Your task to perform on an android device: open app "File Manager" (install if not already installed) Image 0: 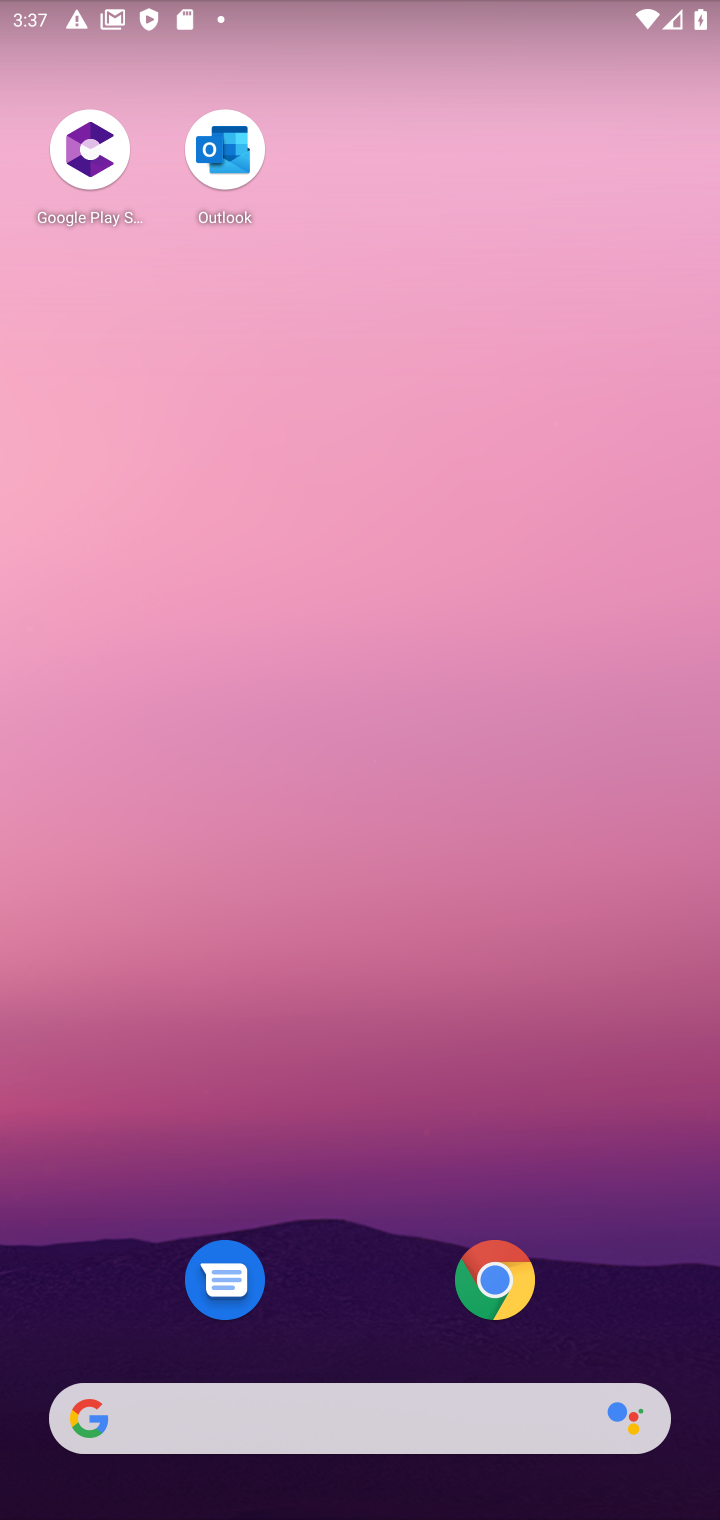
Step 0: drag from (362, 869) to (387, 123)
Your task to perform on an android device: open app "File Manager" (install if not already installed) Image 1: 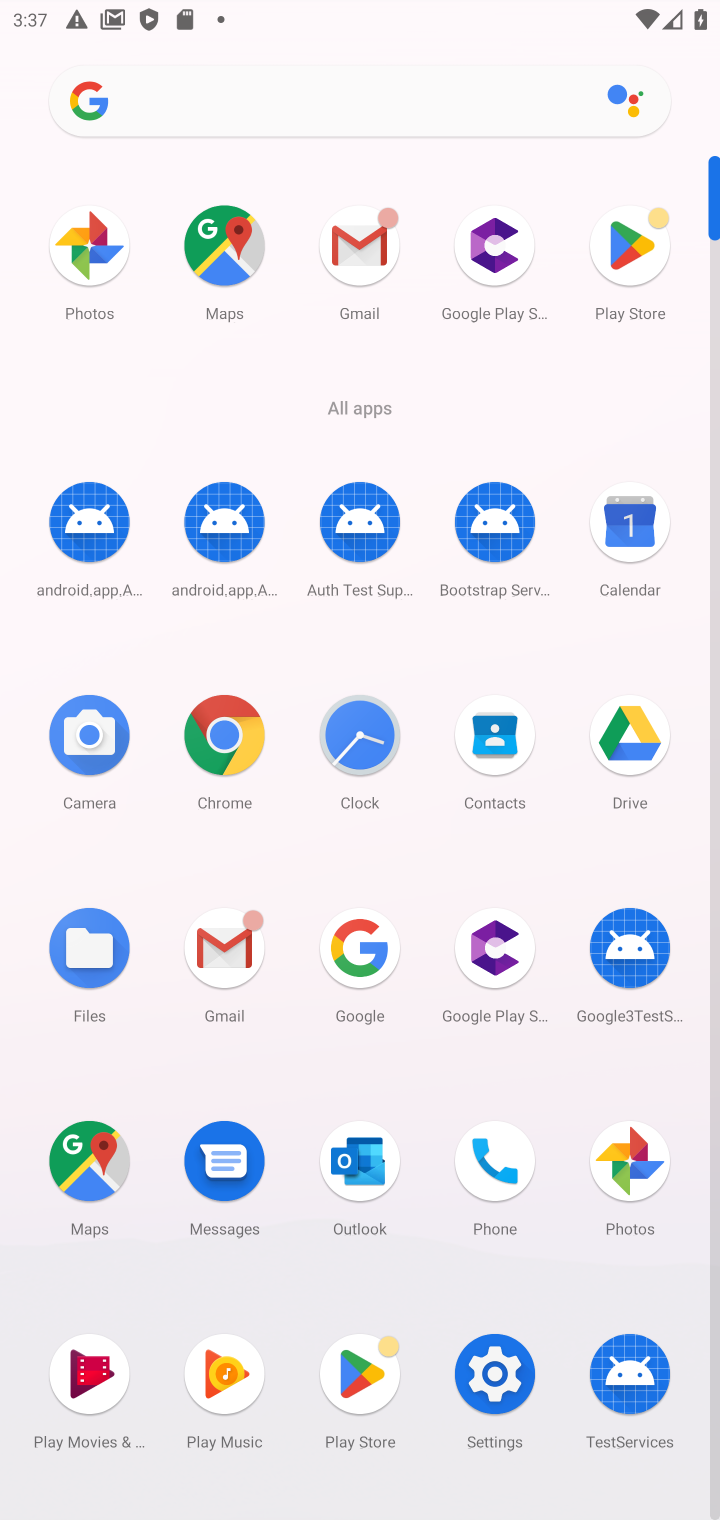
Step 1: click (603, 271)
Your task to perform on an android device: open app "File Manager" (install if not already installed) Image 2: 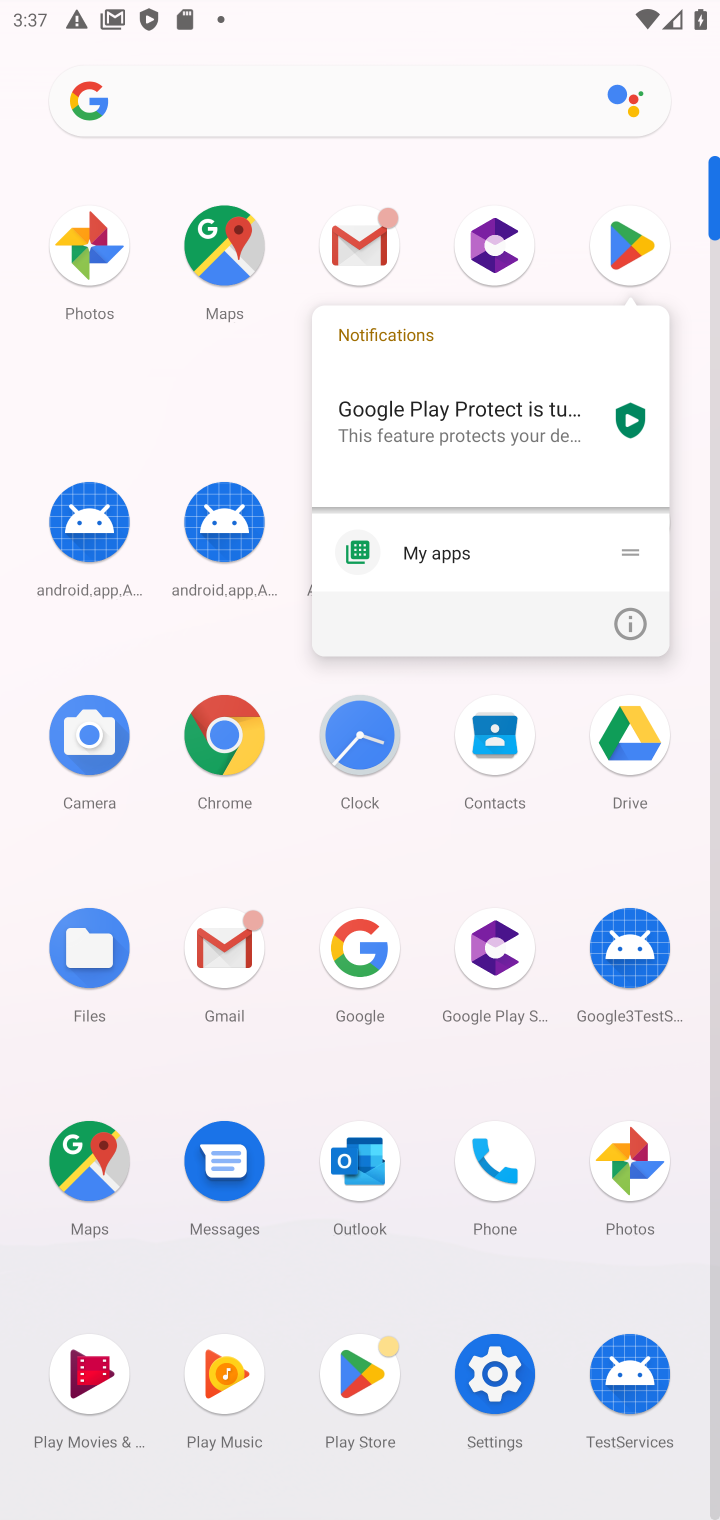
Step 2: click (626, 250)
Your task to perform on an android device: open app "File Manager" (install if not already installed) Image 3: 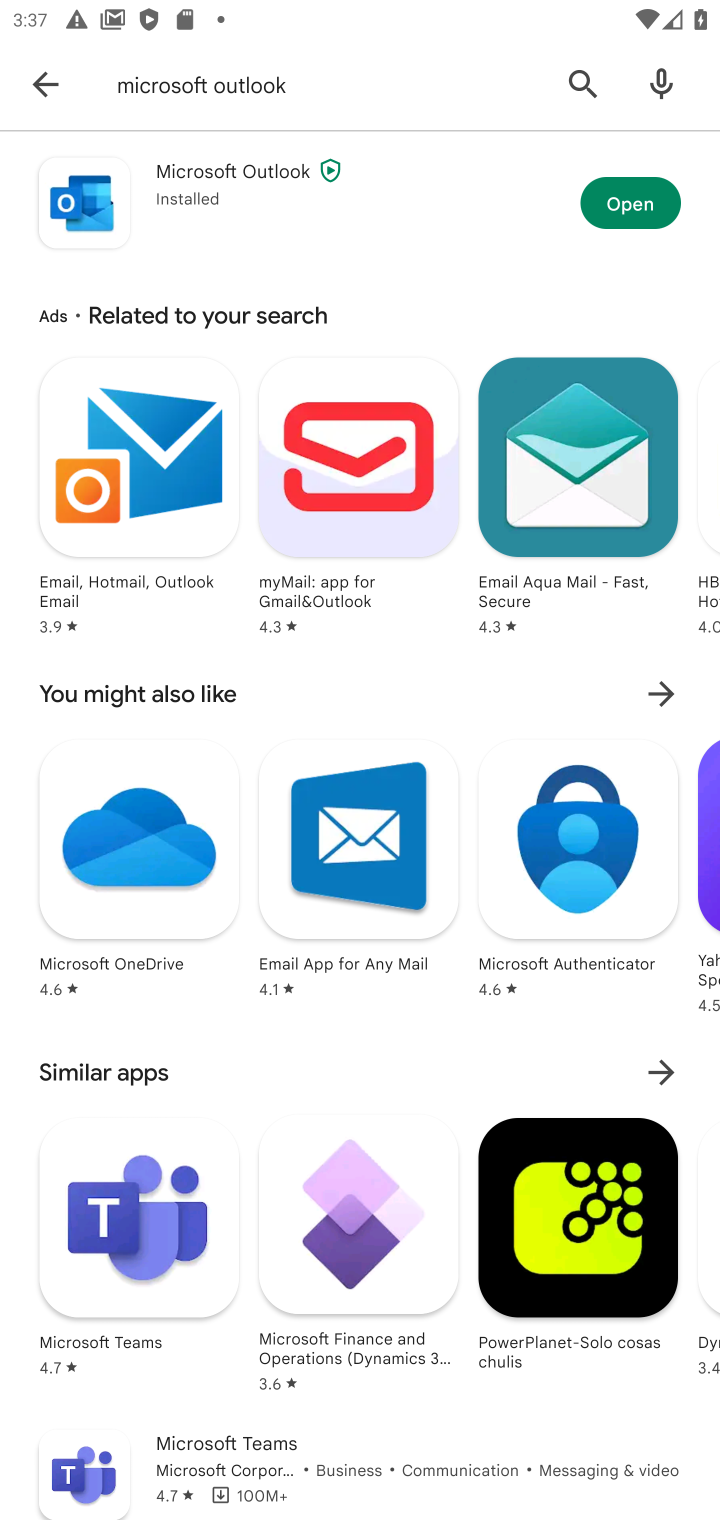
Step 3: click (570, 77)
Your task to perform on an android device: open app "File Manager" (install if not already installed) Image 4: 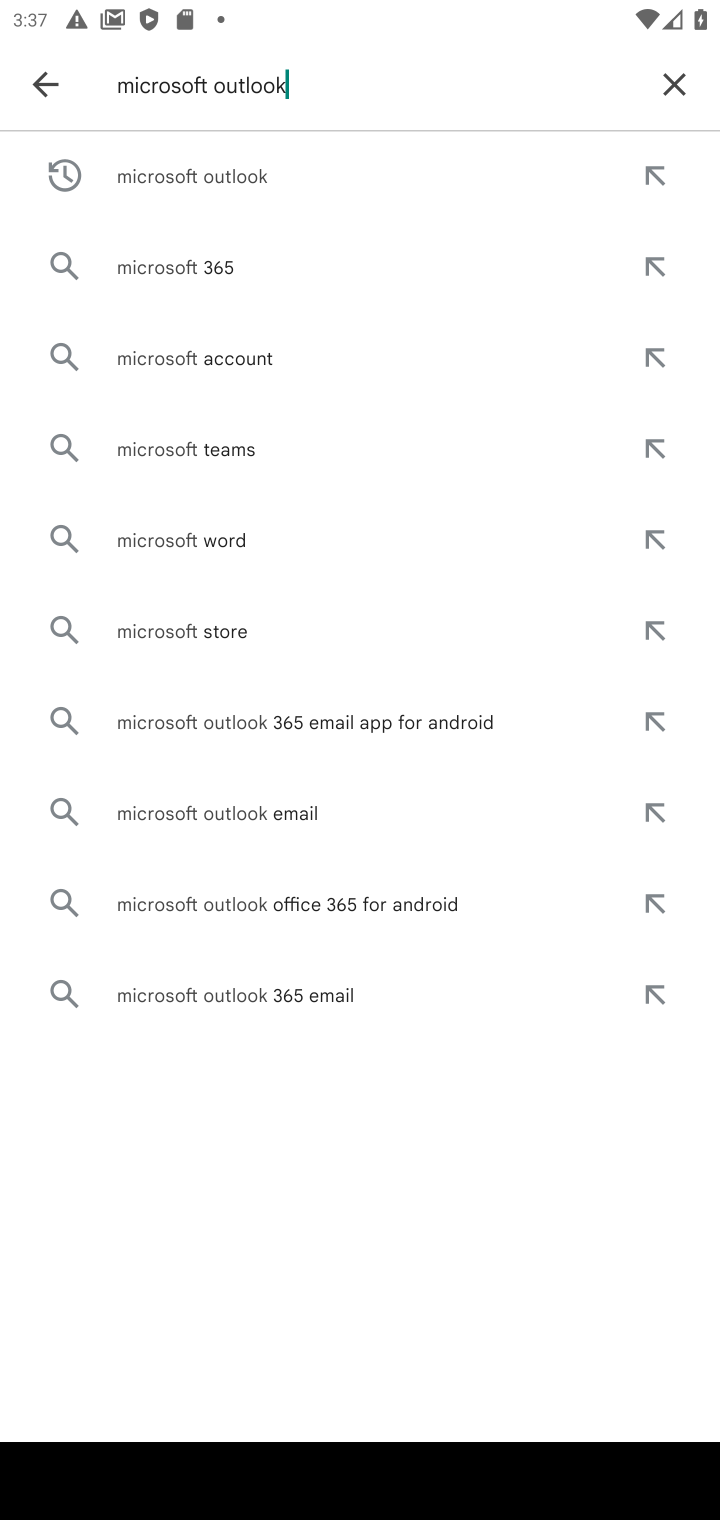
Step 4: click (662, 92)
Your task to perform on an android device: open app "File Manager" (install if not already installed) Image 5: 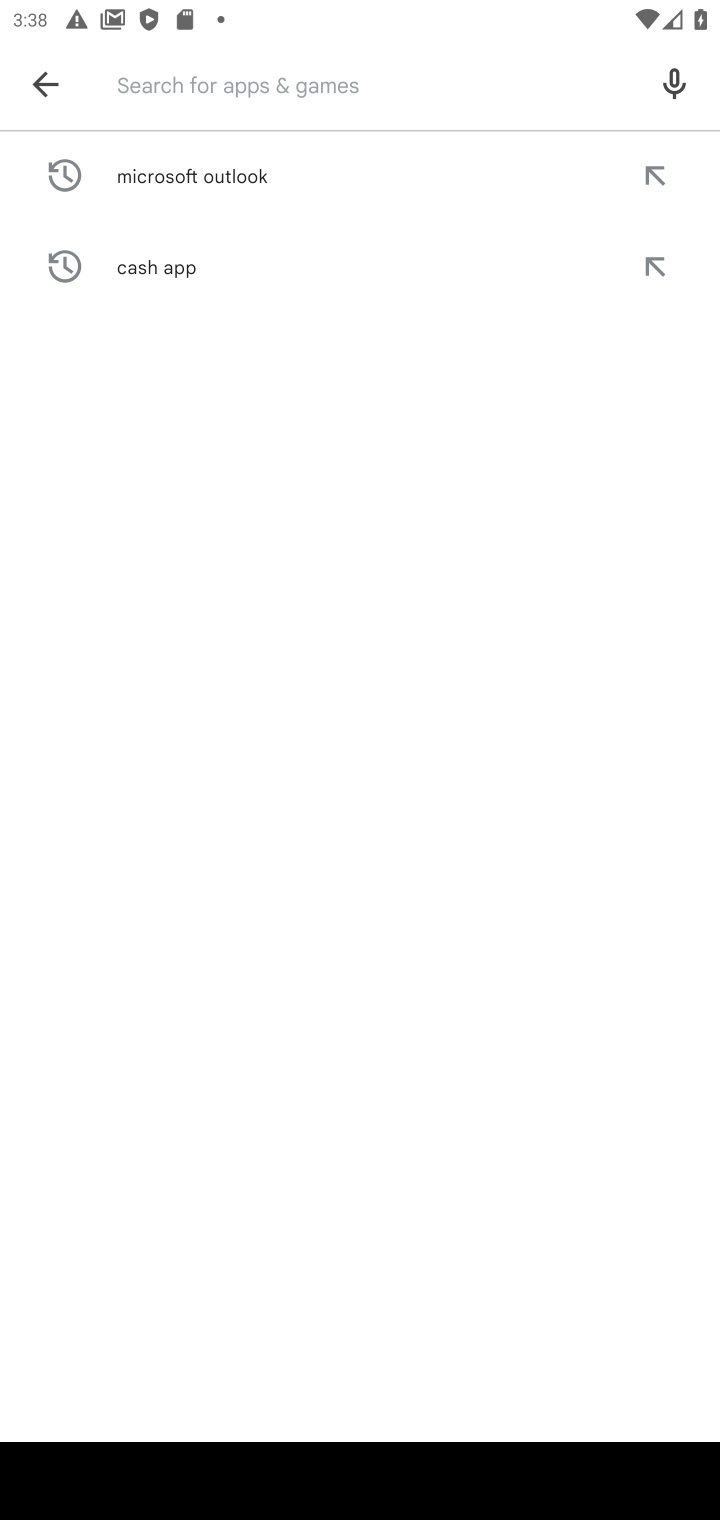
Step 5: type "File Manager"
Your task to perform on an android device: open app "File Manager" (install if not already installed) Image 6: 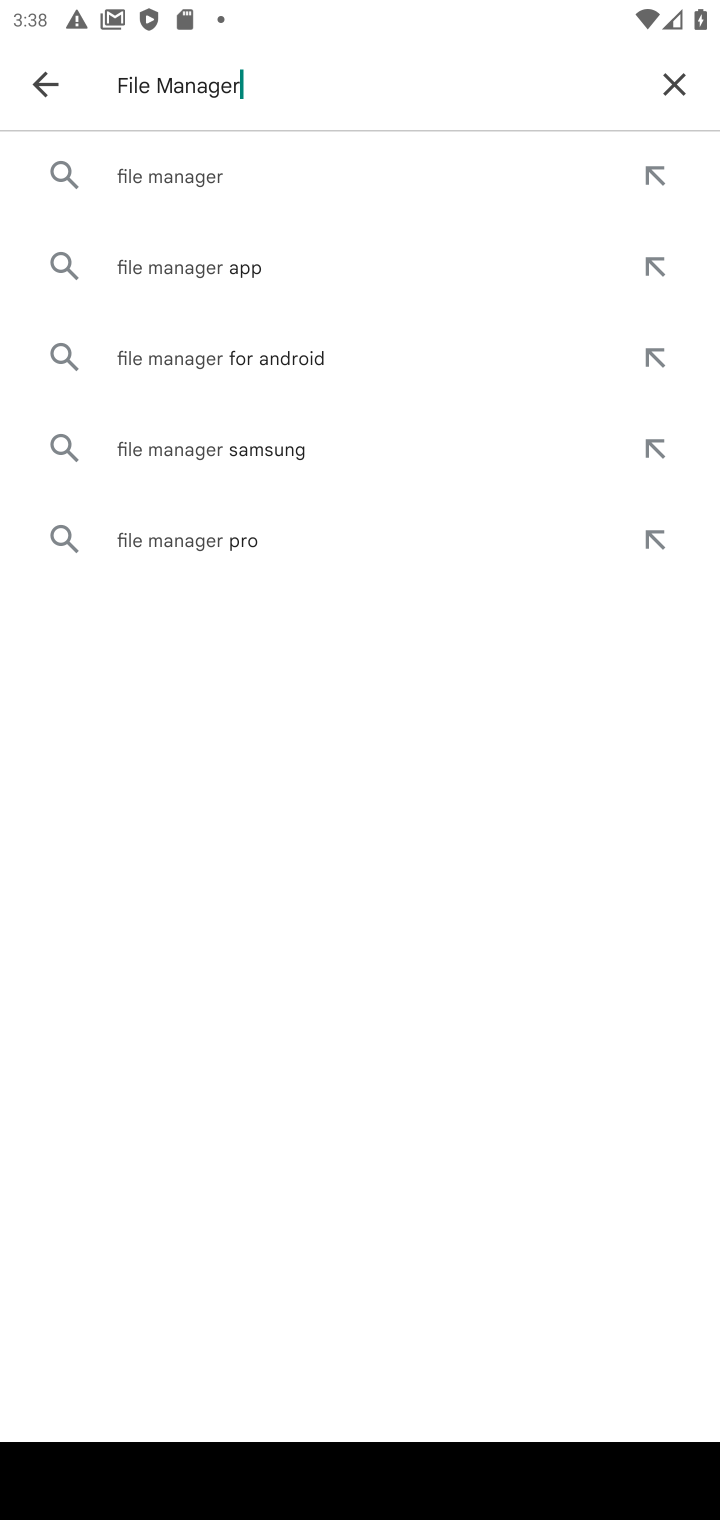
Step 6: click (181, 189)
Your task to perform on an android device: open app "File Manager" (install if not already installed) Image 7: 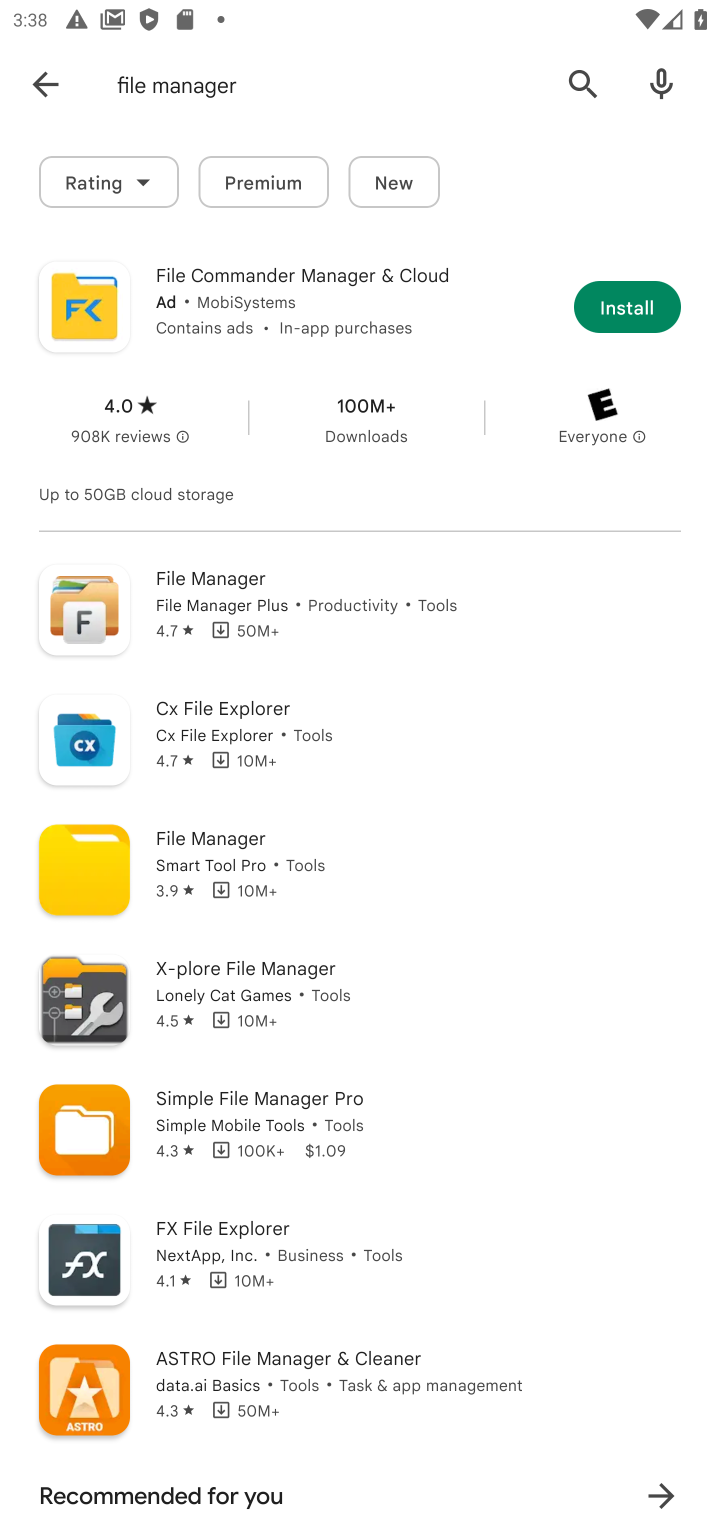
Step 7: click (199, 594)
Your task to perform on an android device: open app "File Manager" (install if not already installed) Image 8: 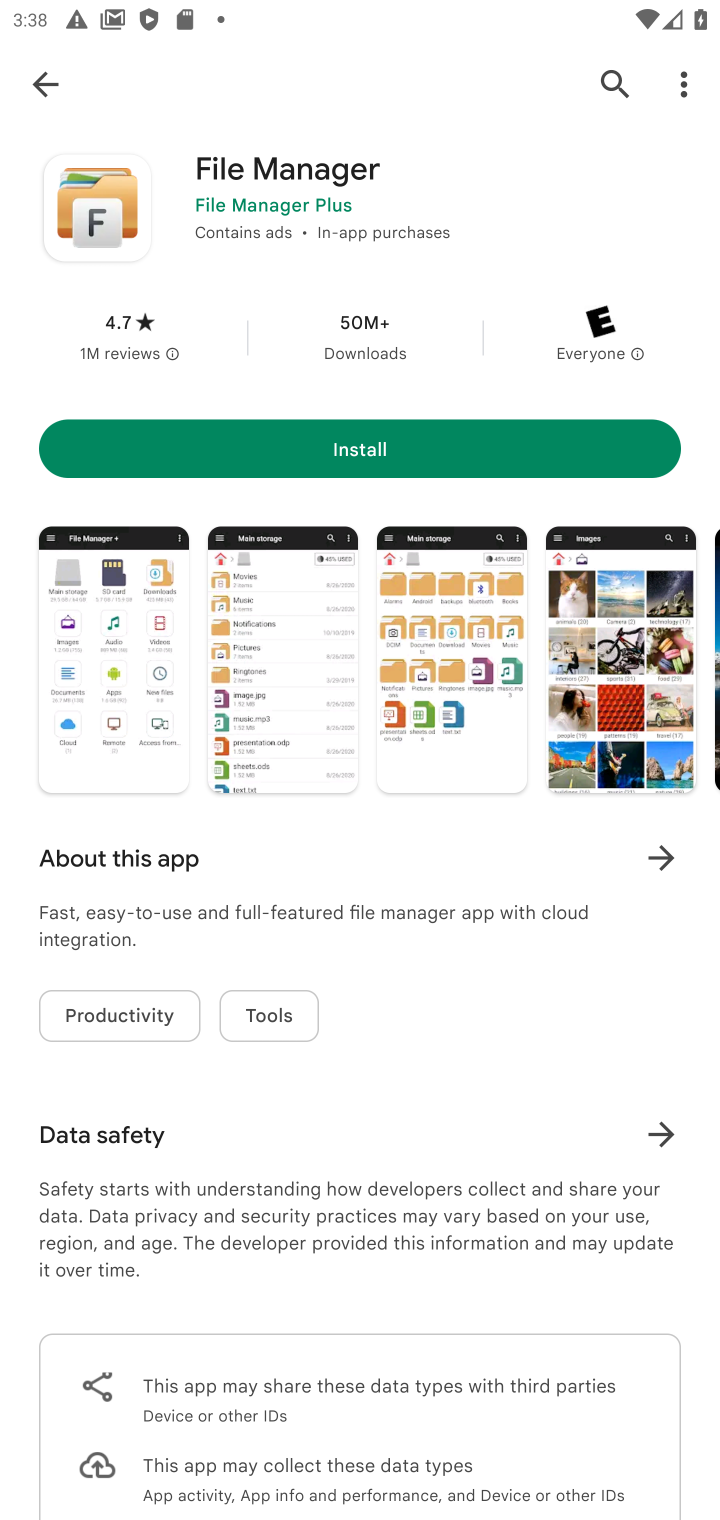
Step 8: click (342, 448)
Your task to perform on an android device: open app "File Manager" (install if not already installed) Image 9: 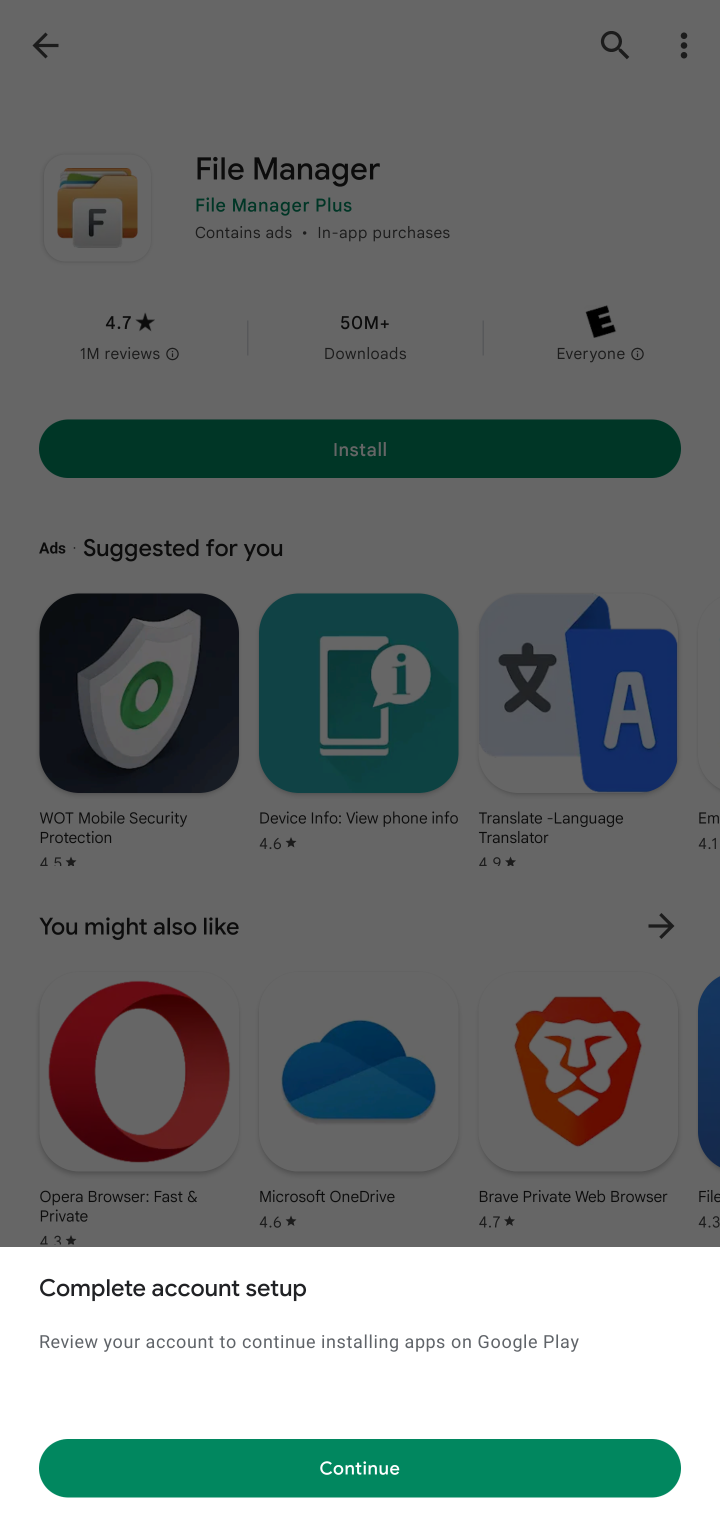
Step 9: click (394, 1465)
Your task to perform on an android device: open app "File Manager" (install if not already installed) Image 10: 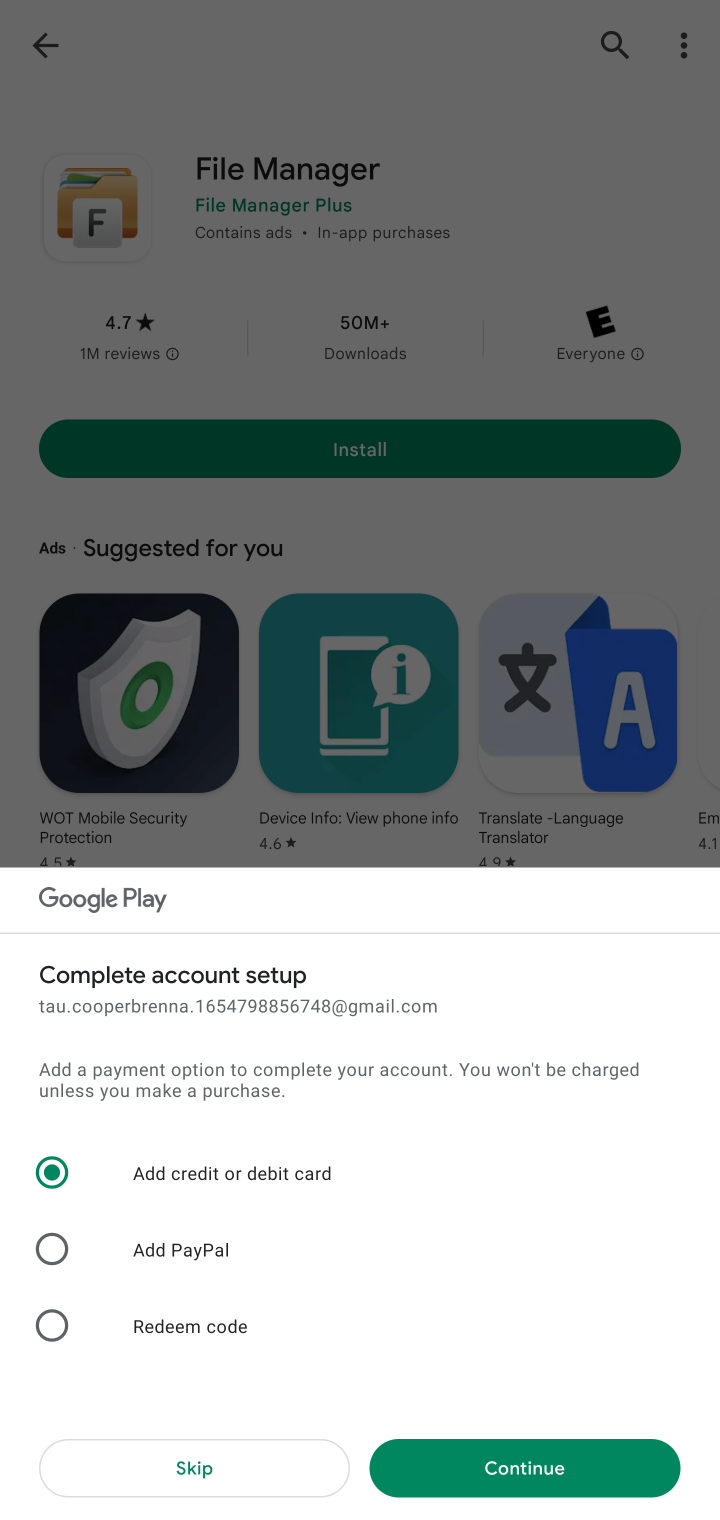
Step 10: click (189, 1474)
Your task to perform on an android device: open app "File Manager" (install if not already installed) Image 11: 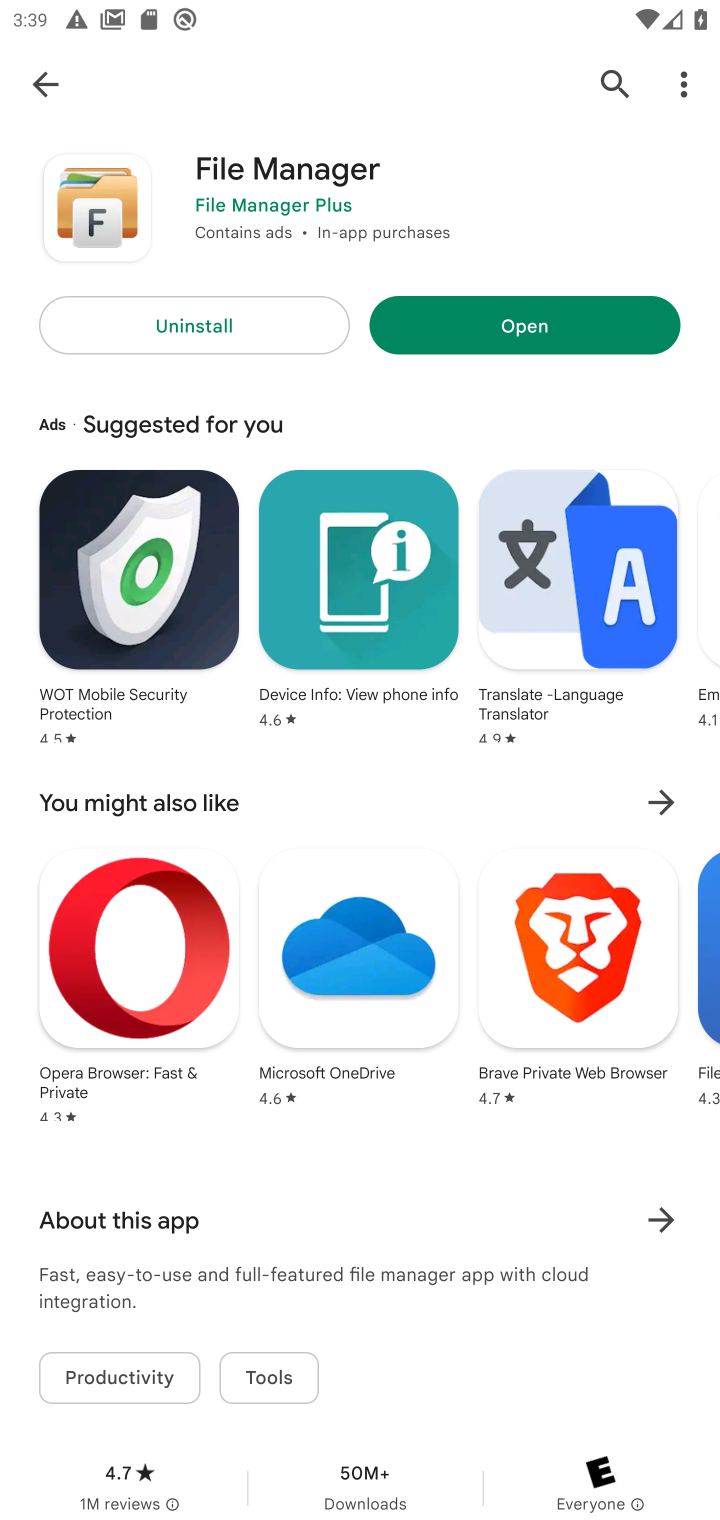
Step 11: click (517, 327)
Your task to perform on an android device: open app "File Manager" (install if not already installed) Image 12: 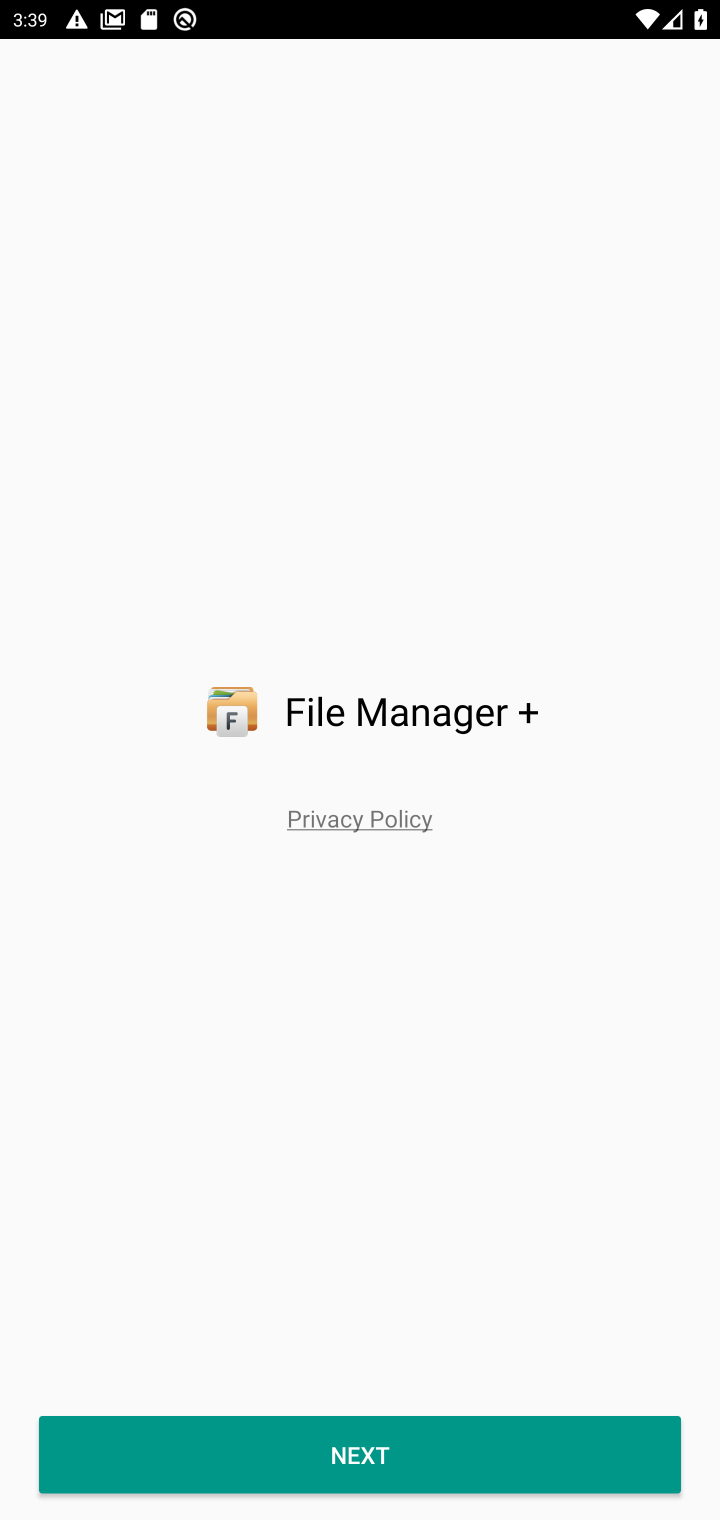
Step 12: task complete